Your task to perform on an android device: uninstall "Pandora - Music & Podcasts" Image 0: 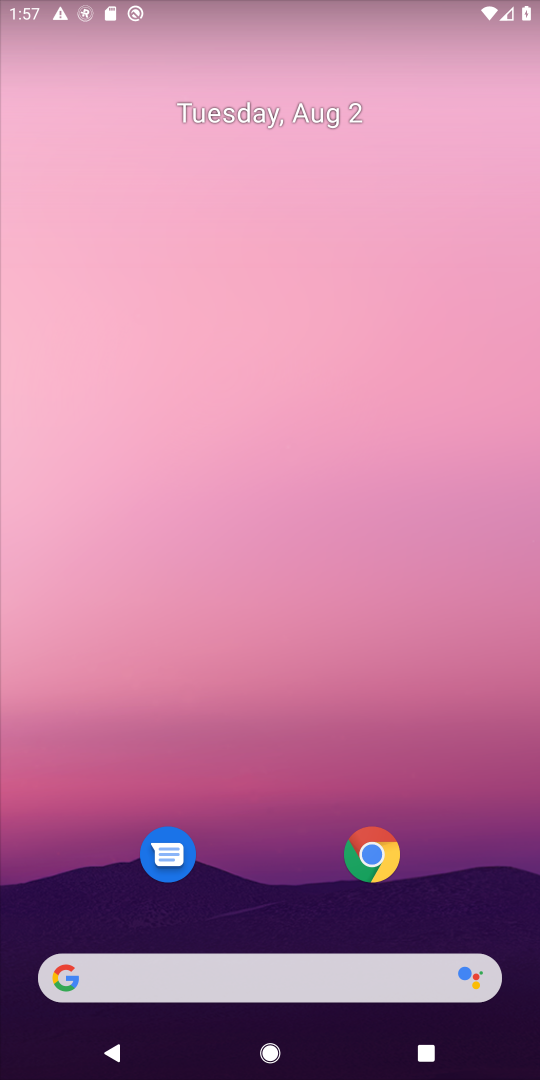
Step 0: drag from (309, 1042) to (303, 325)
Your task to perform on an android device: uninstall "Pandora - Music & Podcasts" Image 1: 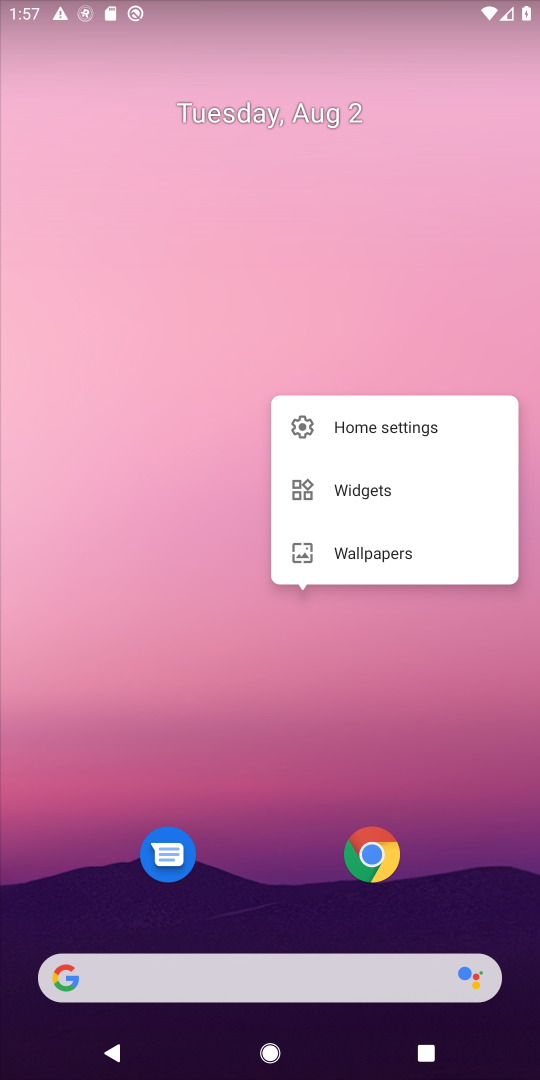
Step 1: click (281, 684)
Your task to perform on an android device: uninstall "Pandora - Music & Podcasts" Image 2: 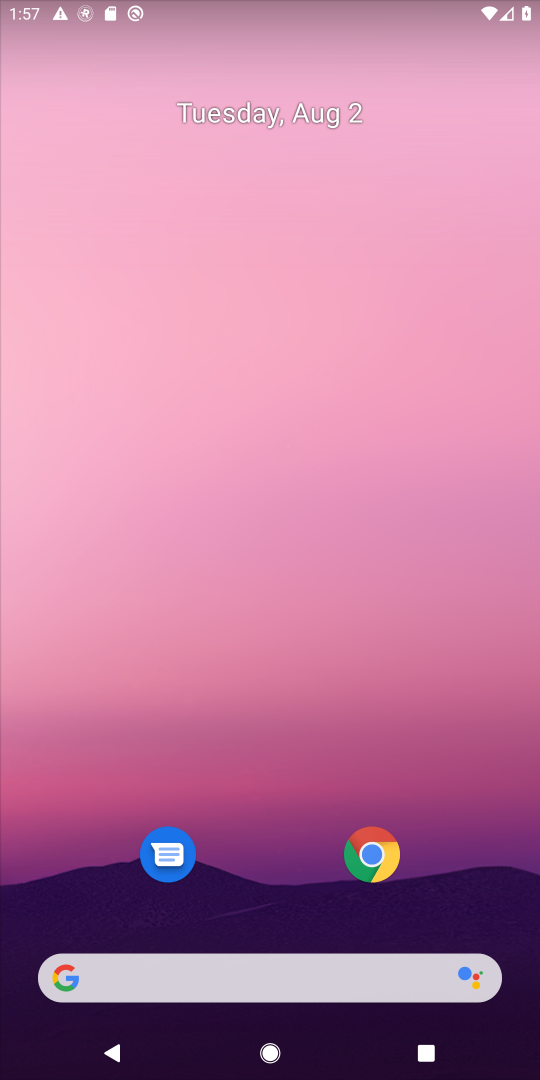
Step 2: drag from (308, 1077) to (316, 179)
Your task to perform on an android device: uninstall "Pandora - Music & Podcasts" Image 3: 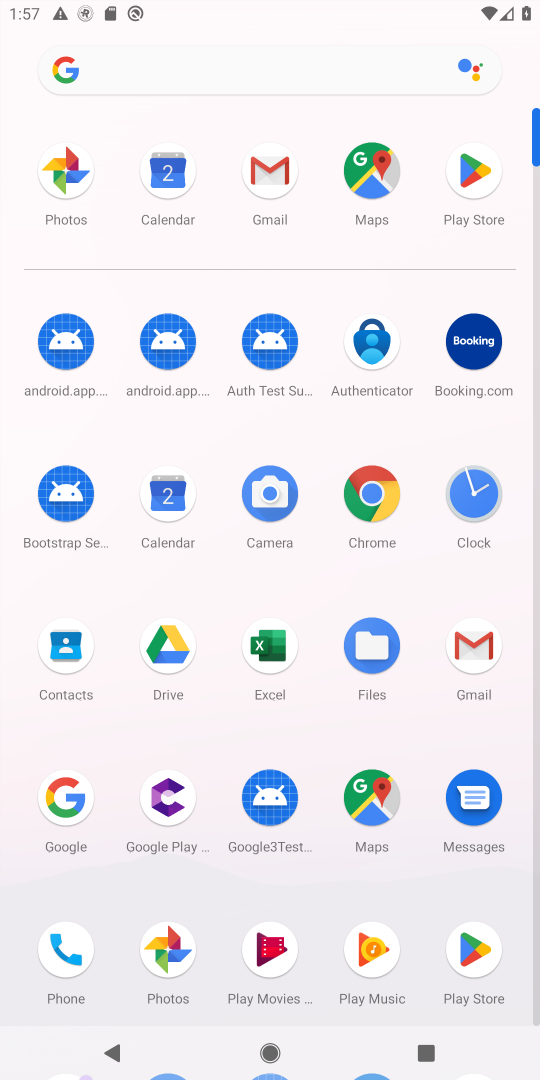
Step 3: click (478, 954)
Your task to perform on an android device: uninstall "Pandora - Music & Podcasts" Image 4: 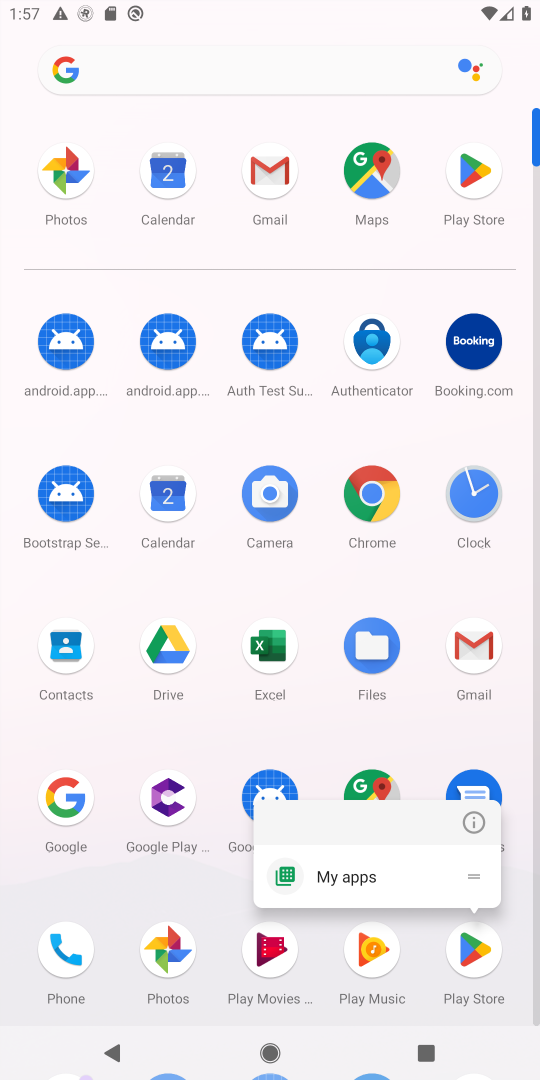
Step 4: click (470, 942)
Your task to perform on an android device: uninstall "Pandora - Music & Podcasts" Image 5: 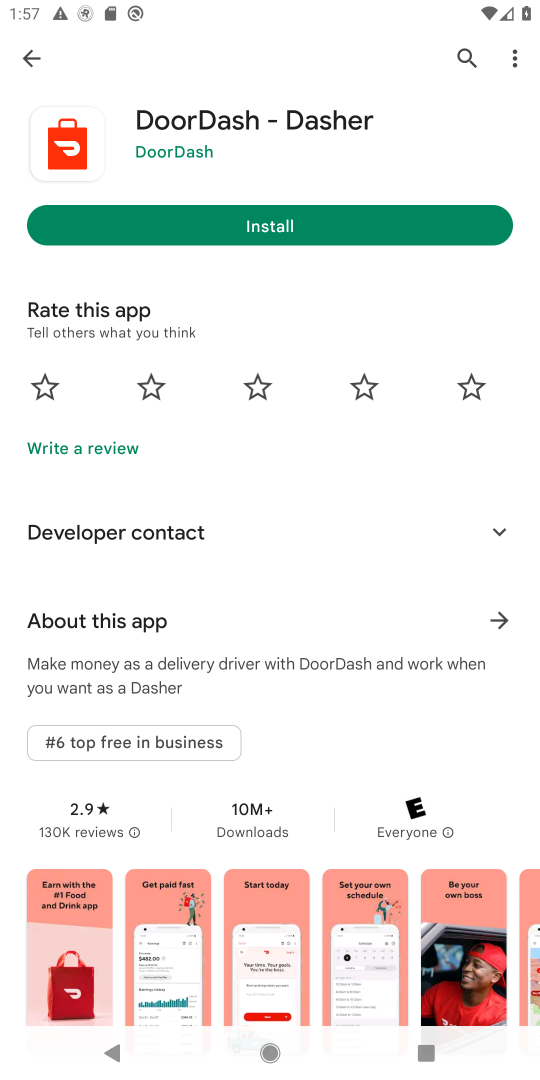
Step 5: click (464, 49)
Your task to perform on an android device: uninstall "Pandora - Music & Podcasts" Image 6: 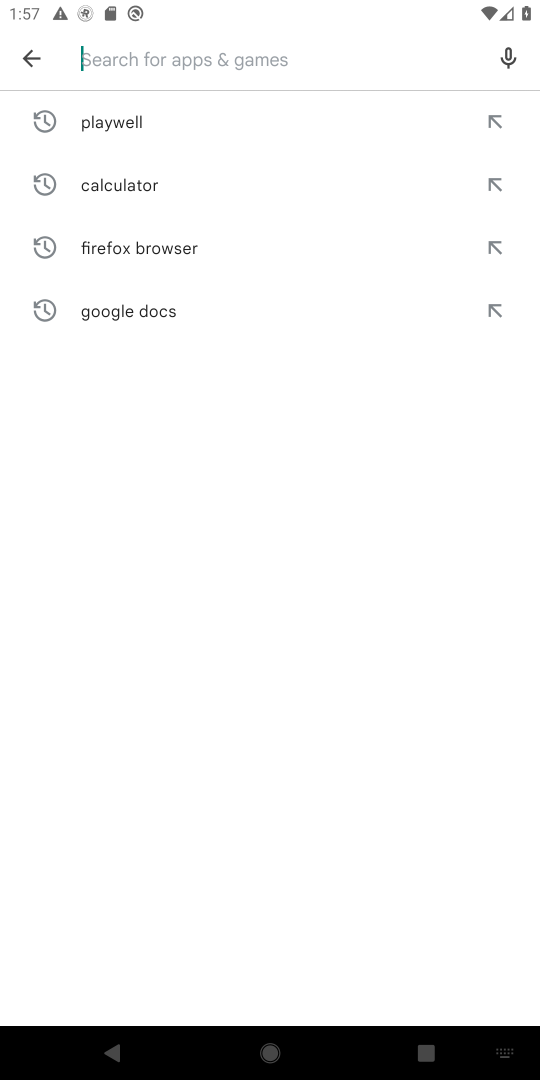
Step 6: type "Pandora - Music & Podcasts"
Your task to perform on an android device: uninstall "Pandora - Music & Podcasts" Image 7: 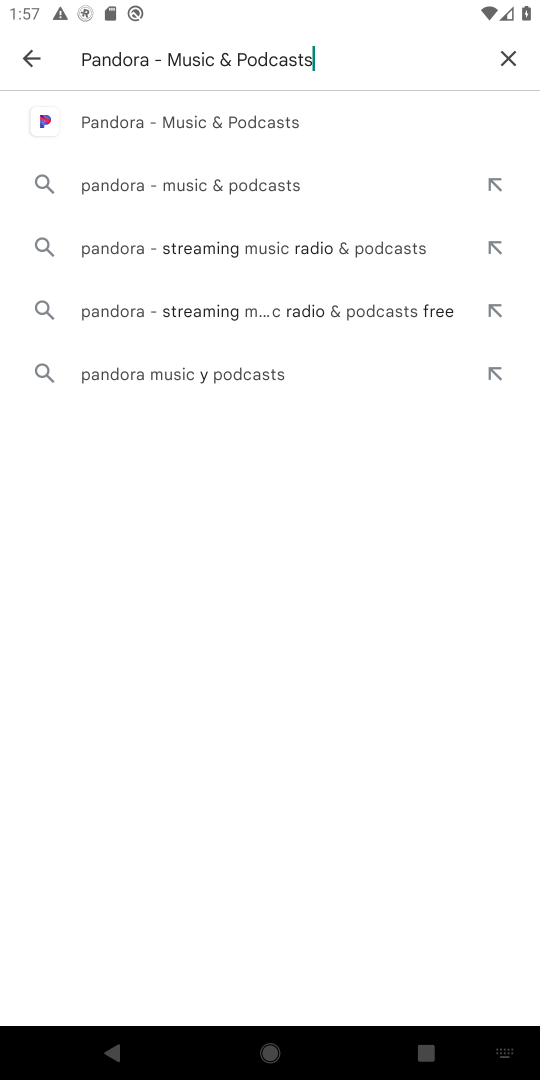
Step 7: click (204, 117)
Your task to perform on an android device: uninstall "Pandora - Music & Podcasts" Image 8: 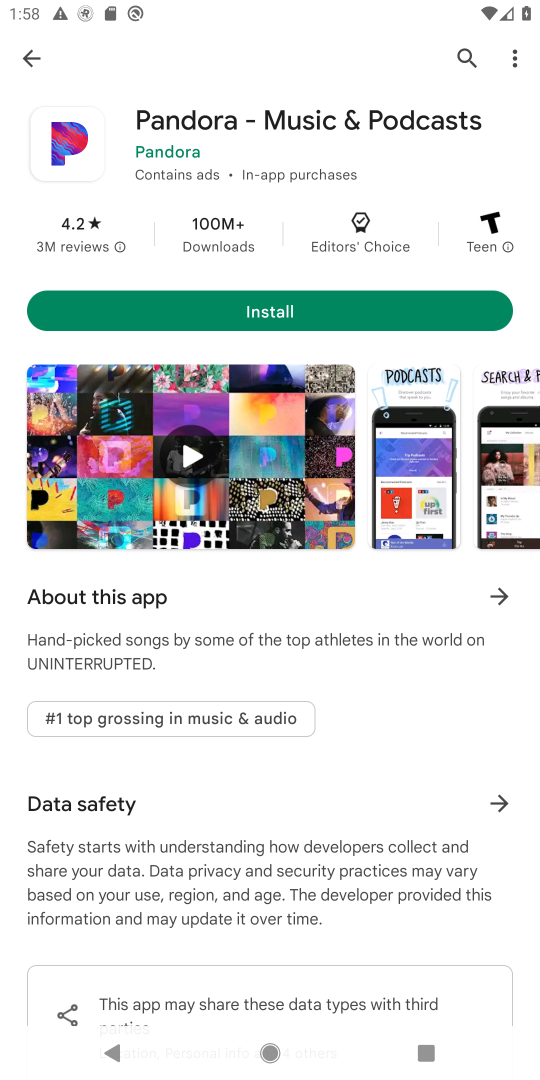
Step 8: task complete